Your task to perform on an android device: When is my next meeting? Image 0: 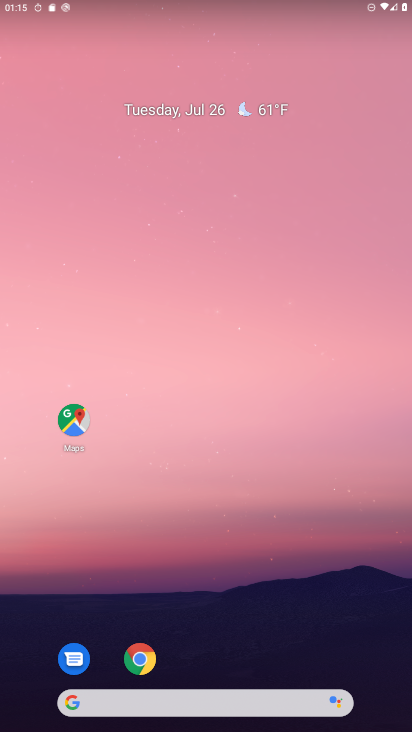
Step 0: drag from (20, 690) to (217, 218)
Your task to perform on an android device: When is my next meeting? Image 1: 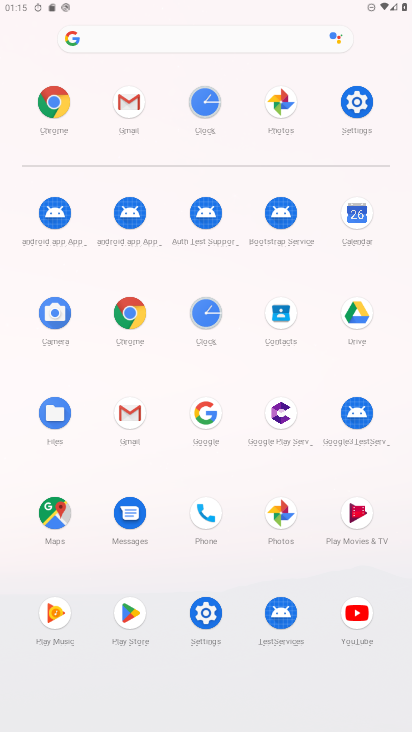
Step 1: click (381, 595)
Your task to perform on an android device: When is my next meeting? Image 2: 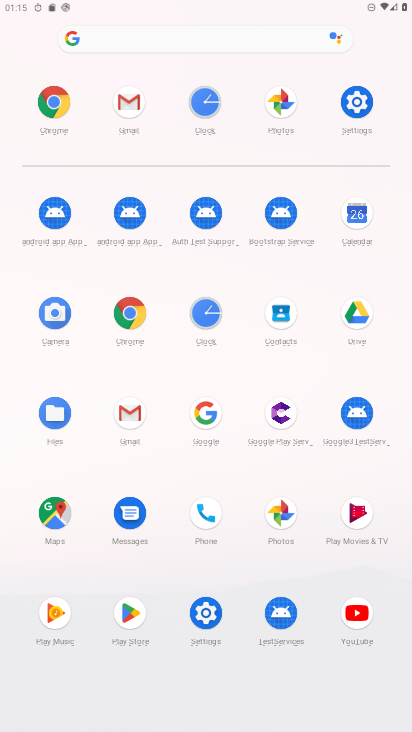
Step 2: click (361, 612)
Your task to perform on an android device: When is my next meeting? Image 3: 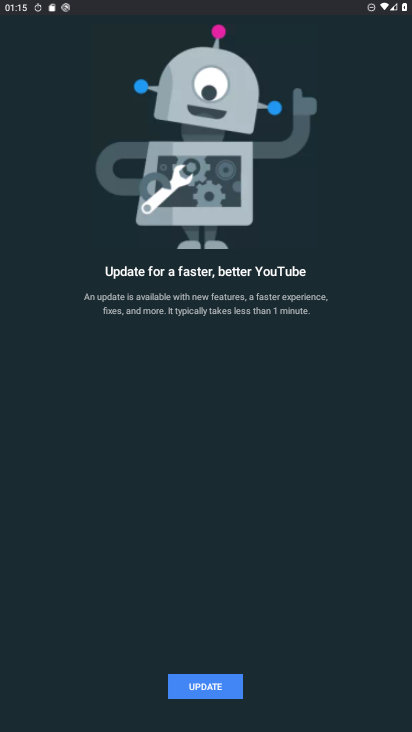
Step 3: press home button
Your task to perform on an android device: When is my next meeting? Image 4: 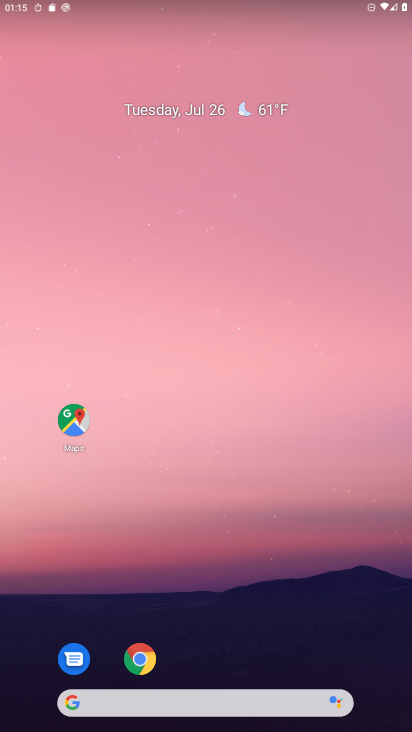
Step 4: click (214, 368)
Your task to perform on an android device: When is my next meeting? Image 5: 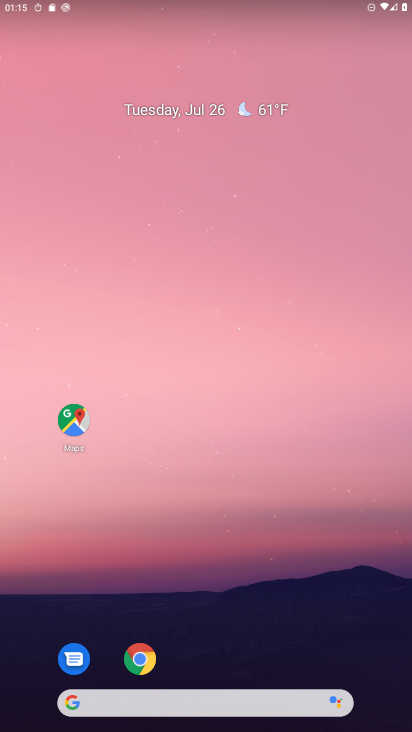
Step 5: drag from (30, 678) to (162, 200)
Your task to perform on an android device: When is my next meeting? Image 6: 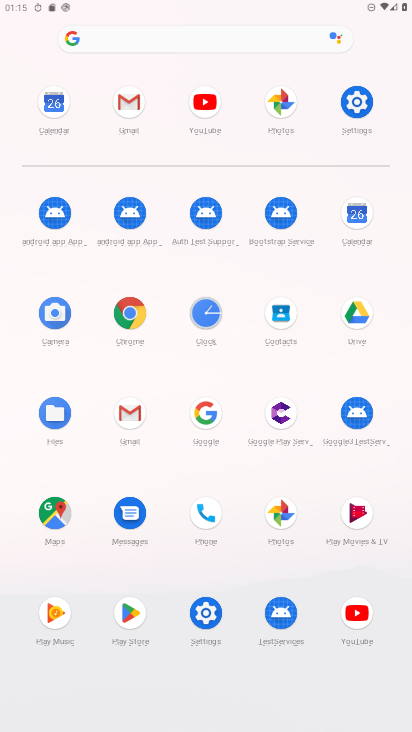
Step 6: click (361, 220)
Your task to perform on an android device: When is my next meeting? Image 7: 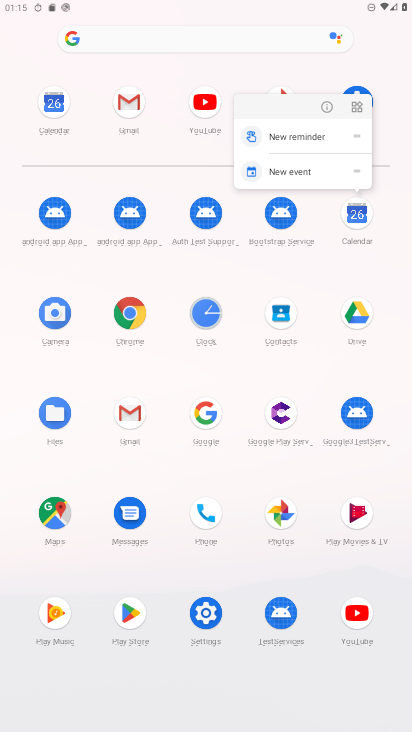
Step 7: click (353, 213)
Your task to perform on an android device: When is my next meeting? Image 8: 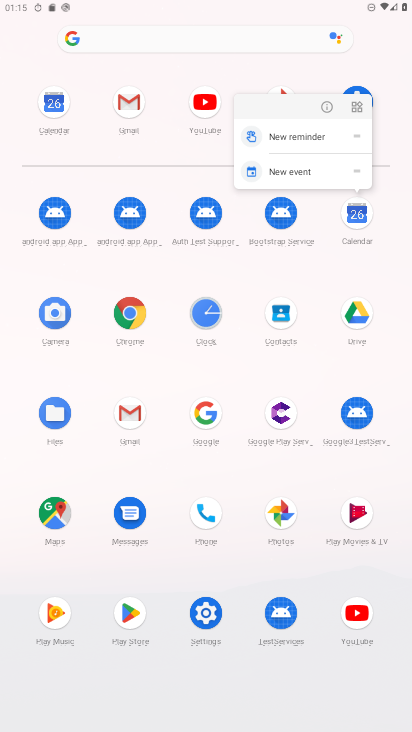
Step 8: click (357, 223)
Your task to perform on an android device: When is my next meeting? Image 9: 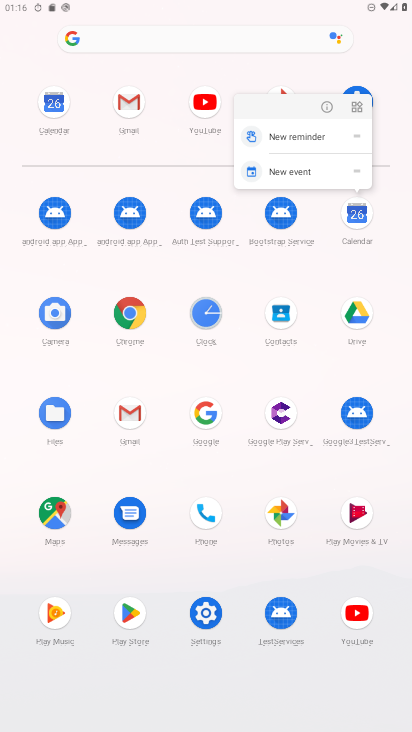
Step 9: click (356, 221)
Your task to perform on an android device: When is my next meeting? Image 10: 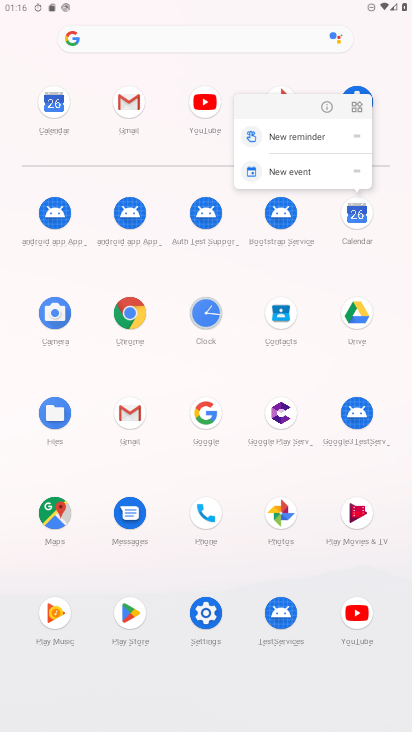
Step 10: click (355, 214)
Your task to perform on an android device: When is my next meeting? Image 11: 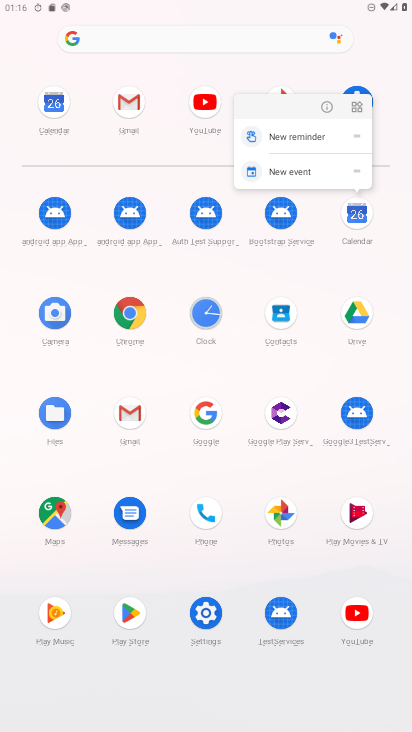
Step 11: task complete